Your task to perform on an android device: Find coffee shops on Maps Image 0: 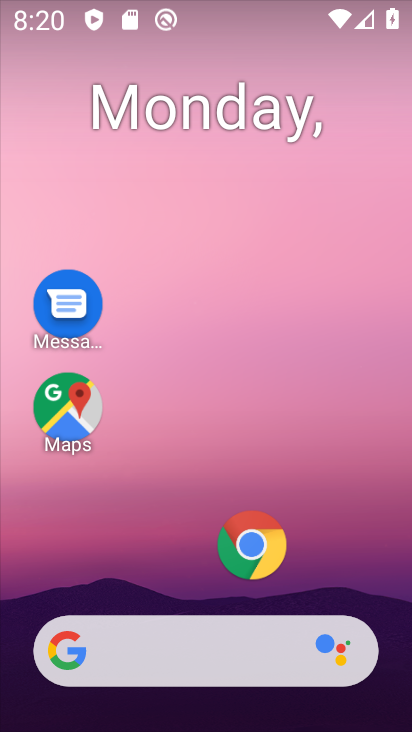
Step 0: drag from (235, 454) to (212, 197)
Your task to perform on an android device: Find coffee shops on Maps Image 1: 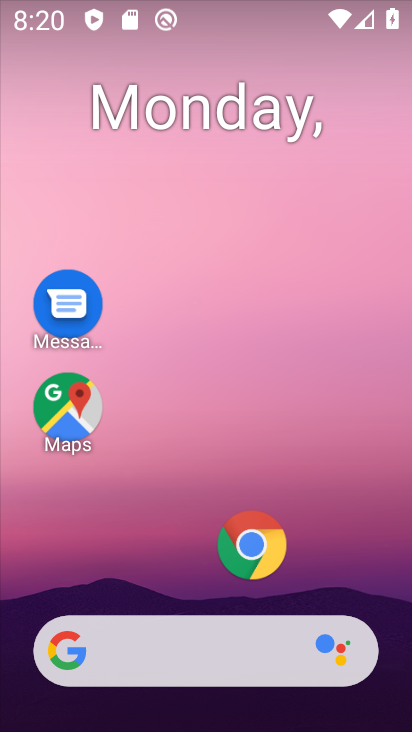
Step 1: click (46, 422)
Your task to perform on an android device: Find coffee shops on Maps Image 2: 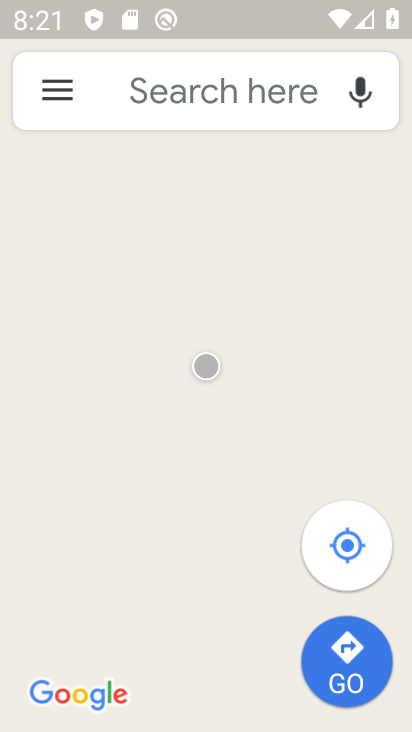
Step 2: click (210, 94)
Your task to perform on an android device: Find coffee shops on Maps Image 3: 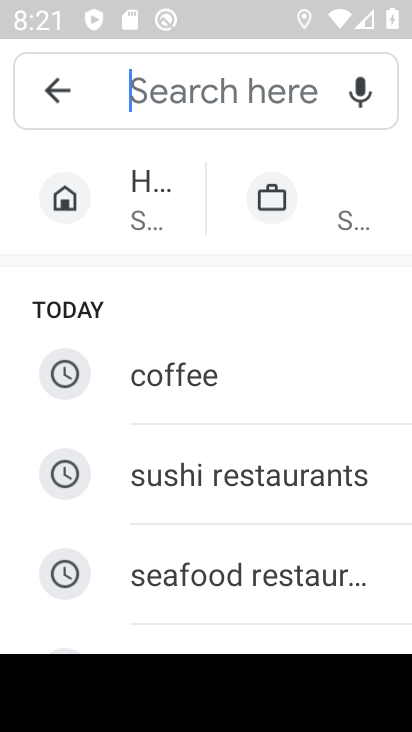
Step 3: type "coffee shops"
Your task to perform on an android device: Find coffee shops on Maps Image 4: 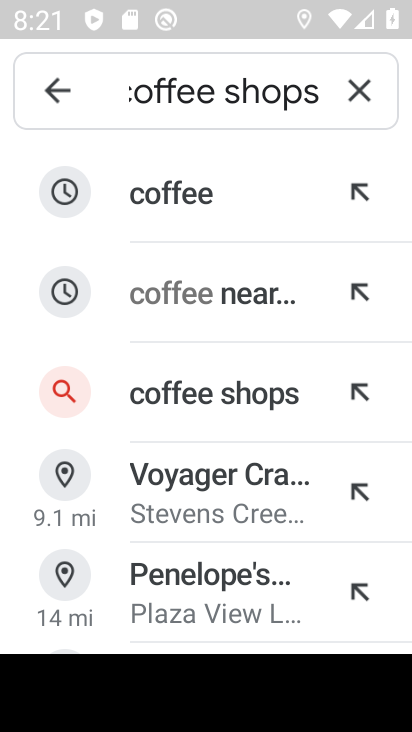
Step 4: click (230, 389)
Your task to perform on an android device: Find coffee shops on Maps Image 5: 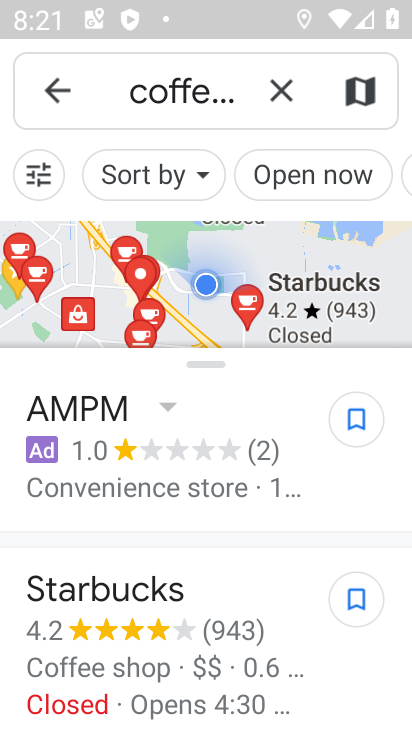
Step 5: task complete